Your task to perform on an android device: Open calendar and show me the third week of next month Image 0: 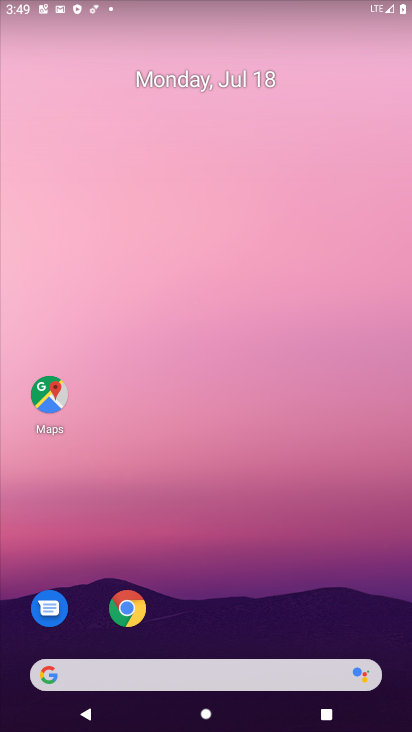
Step 0: drag from (180, 557) to (180, 96)
Your task to perform on an android device: Open calendar and show me the third week of next month Image 1: 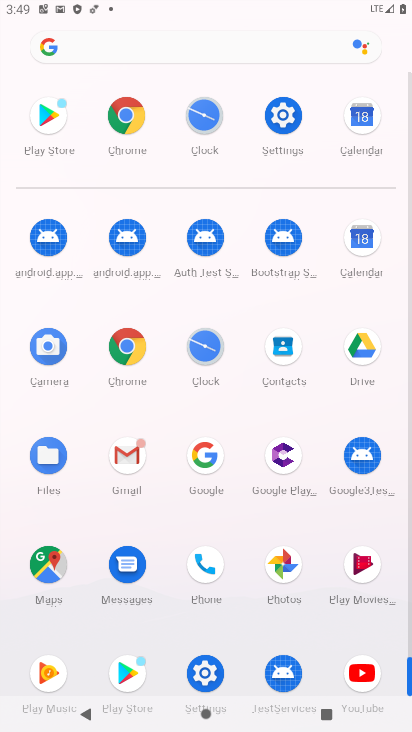
Step 1: click (361, 143)
Your task to perform on an android device: Open calendar and show me the third week of next month Image 2: 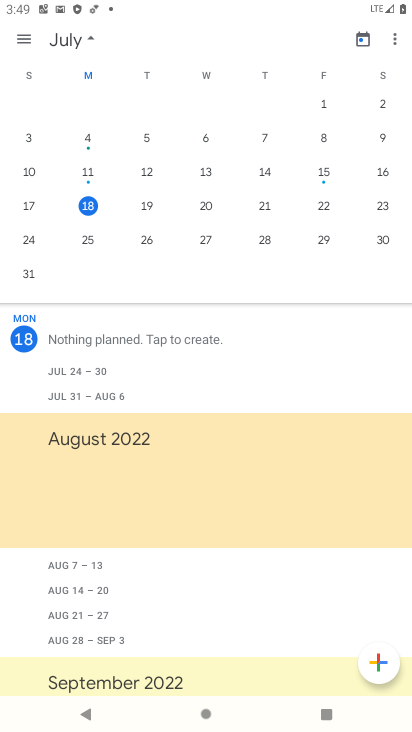
Step 2: click (75, 40)
Your task to perform on an android device: Open calendar and show me the third week of next month Image 3: 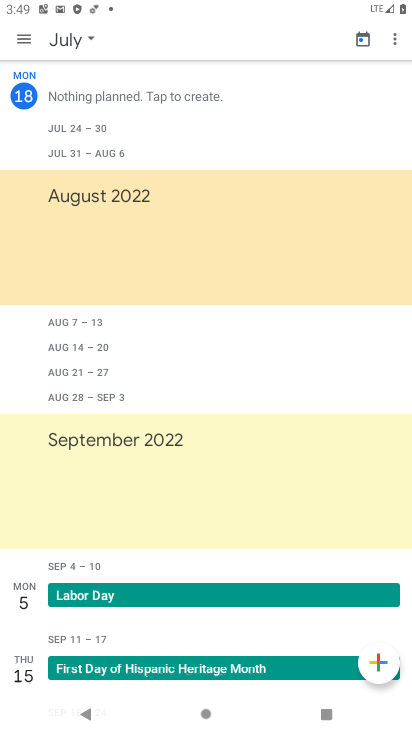
Step 3: click (87, 45)
Your task to perform on an android device: Open calendar and show me the third week of next month Image 4: 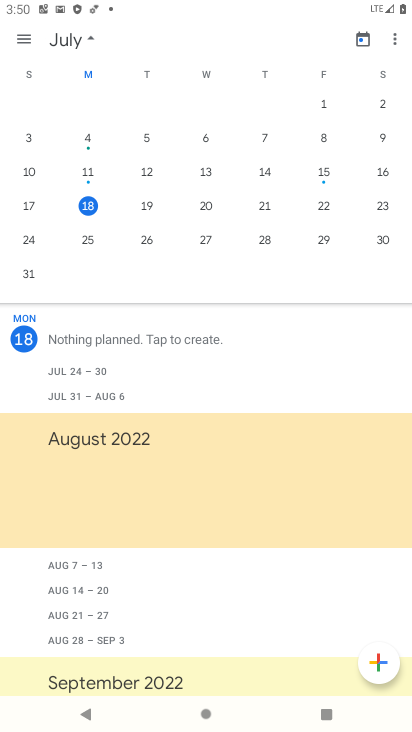
Step 4: drag from (330, 233) to (13, 297)
Your task to perform on an android device: Open calendar and show me the third week of next month Image 5: 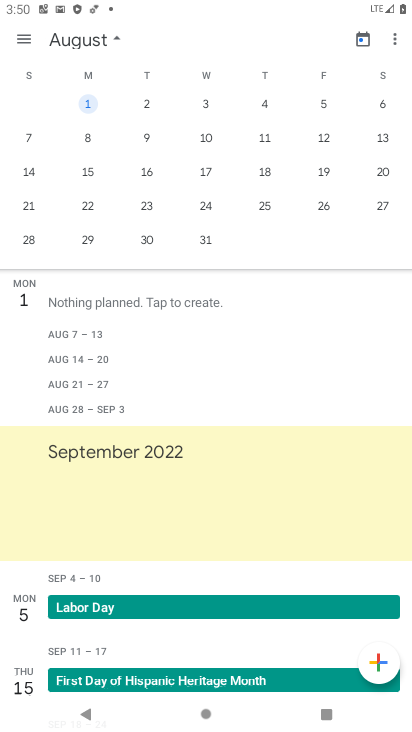
Step 5: click (89, 172)
Your task to perform on an android device: Open calendar and show me the third week of next month Image 6: 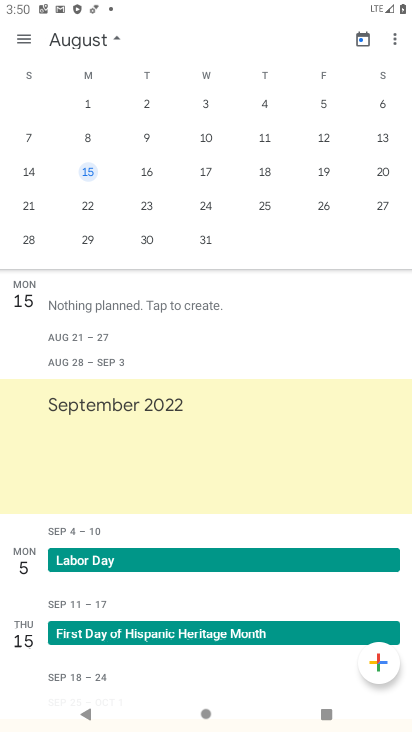
Step 6: task complete